Your task to perform on an android device: Clear the shopping cart on costco.com. Image 0: 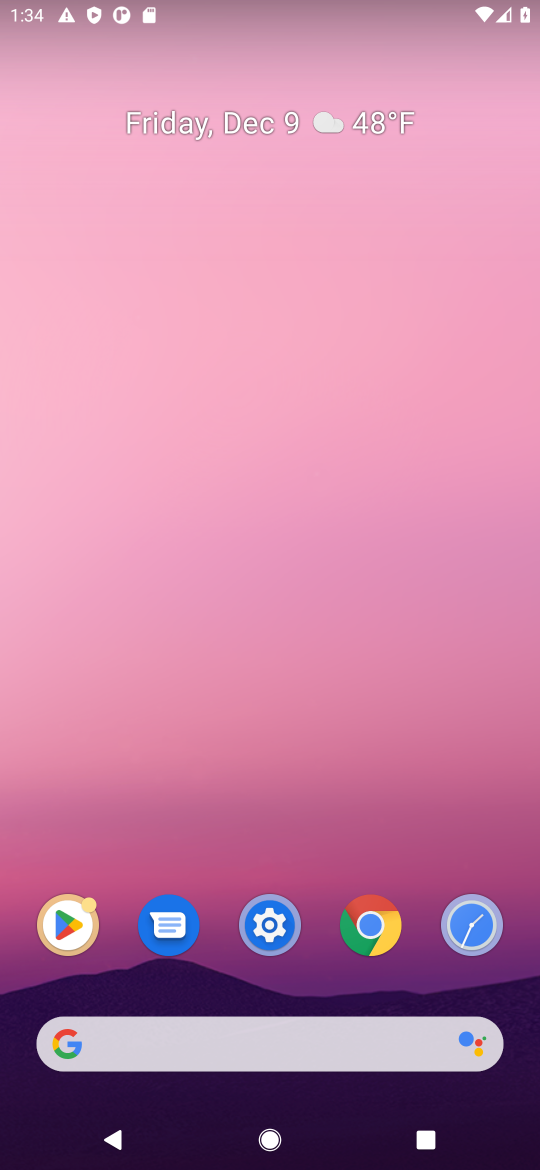
Step 0: click (291, 1046)
Your task to perform on an android device: Clear the shopping cart on costco.com. Image 1: 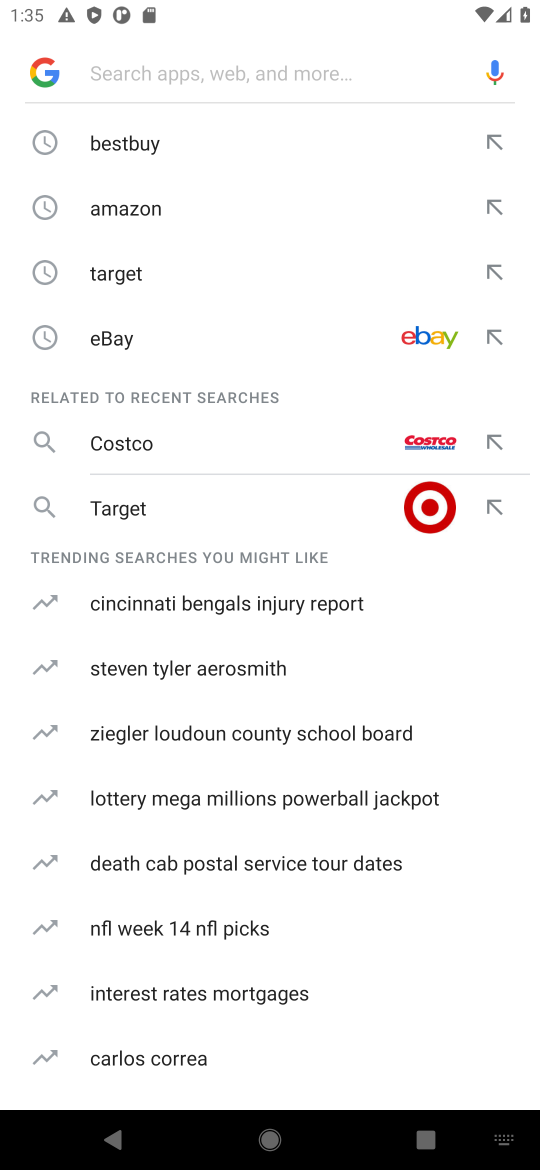
Step 1: type "costco"
Your task to perform on an android device: Clear the shopping cart on costco.com. Image 2: 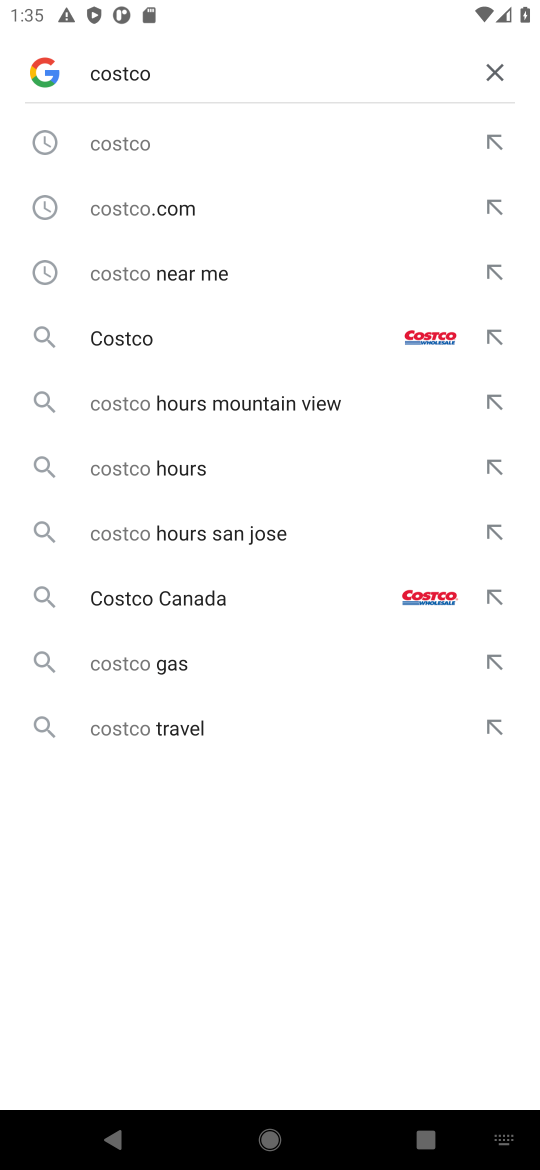
Step 2: click (309, 210)
Your task to perform on an android device: Clear the shopping cart on costco.com. Image 3: 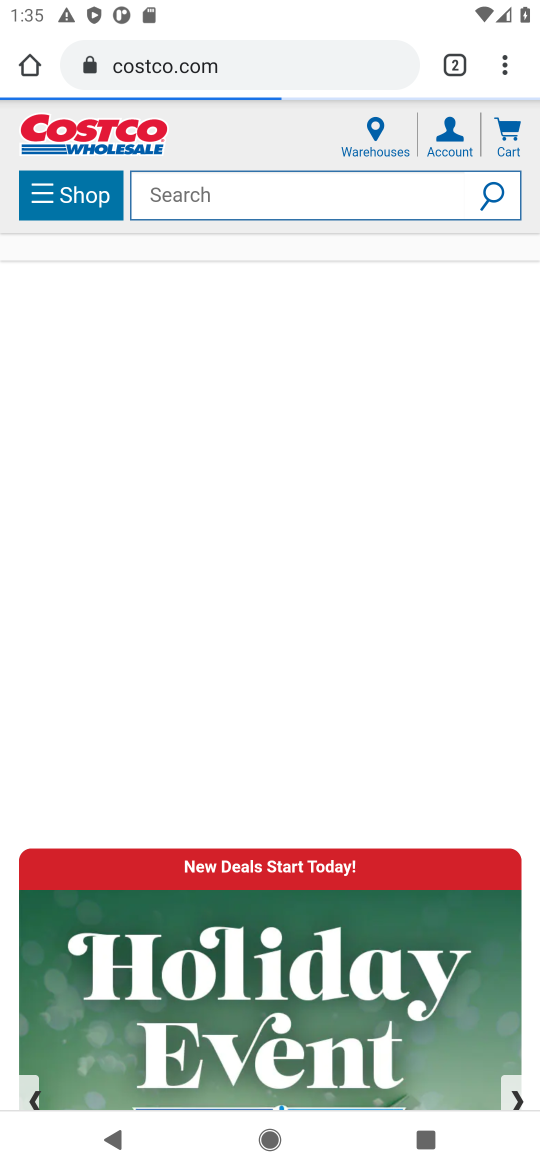
Step 3: click (224, 196)
Your task to perform on an android device: Clear the shopping cart on costco.com. Image 4: 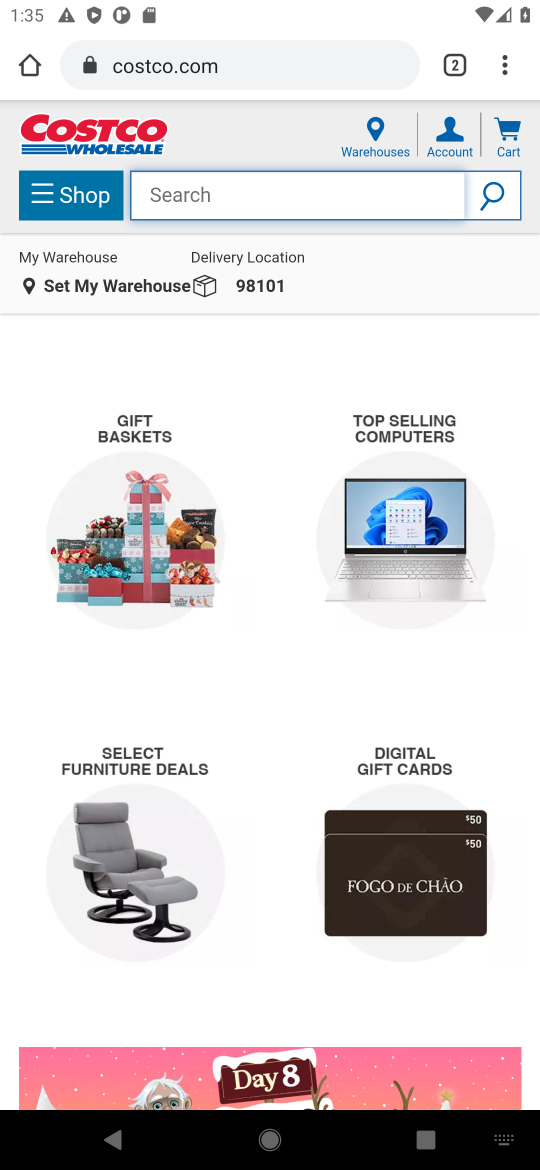
Step 4: click (507, 145)
Your task to perform on an android device: Clear the shopping cart on costco.com. Image 5: 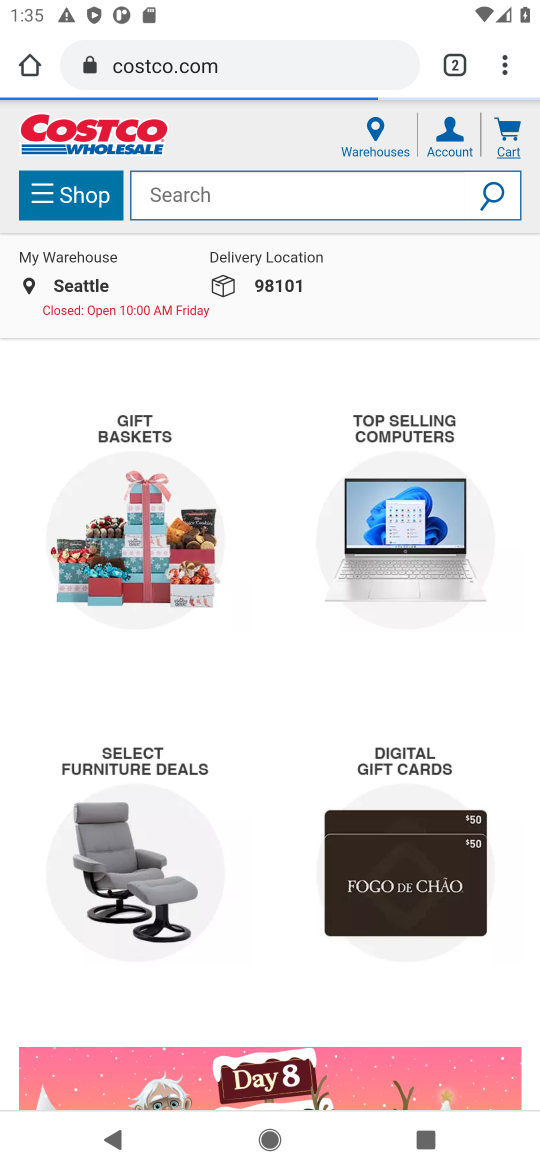
Step 5: task complete